Your task to perform on an android device: turn on the 12-hour format for clock Image 0: 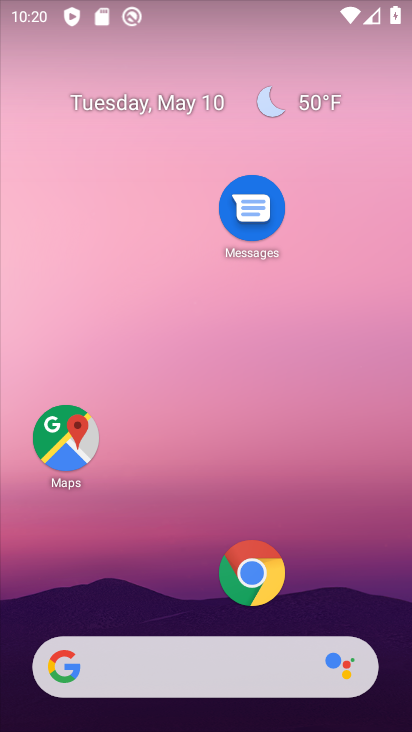
Step 0: drag from (165, 593) to (233, 8)
Your task to perform on an android device: turn on the 12-hour format for clock Image 1: 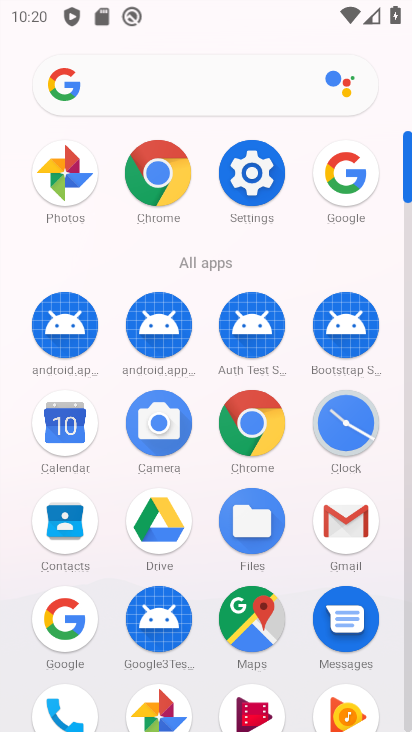
Step 1: click (340, 421)
Your task to perform on an android device: turn on the 12-hour format for clock Image 2: 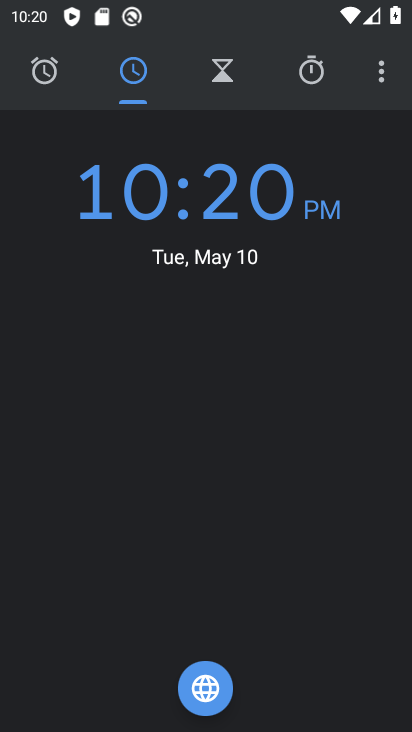
Step 2: click (368, 73)
Your task to perform on an android device: turn on the 12-hour format for clock Image 3: 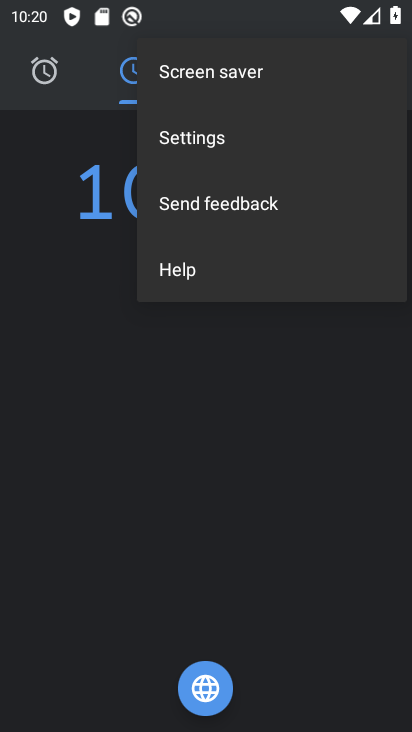
Step 3: click (244, 140)
Your task to perform on an android device: turn on the 12-hour format for clock Image 4: 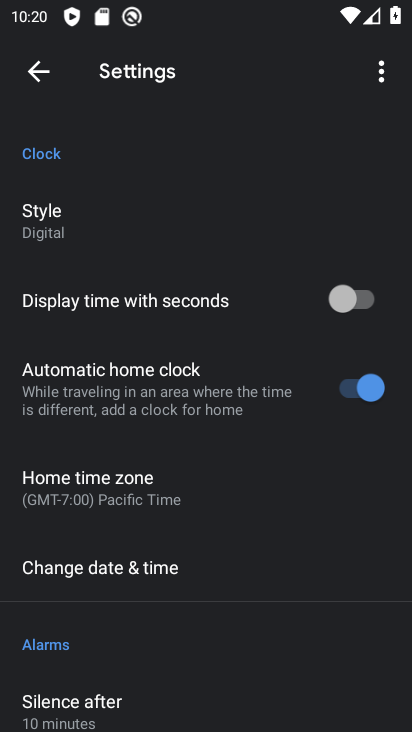
Step 4: click (144, 569)
Your task to perform on an android device: turn on the 12-hour format for clock Image 5: 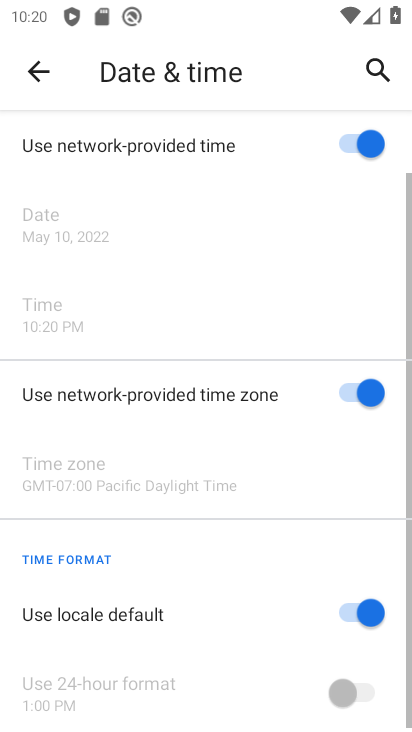
Step 5: task complete